Your task to perform on an android device: turn pop-ups off in chrome Image 0: 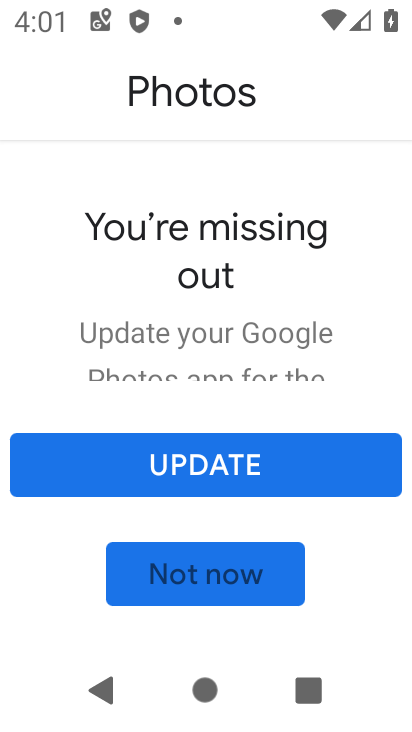
Step 0: click (247, 580)
Your task to perform on an android device: turn pop-ups off in chrome Image 1: 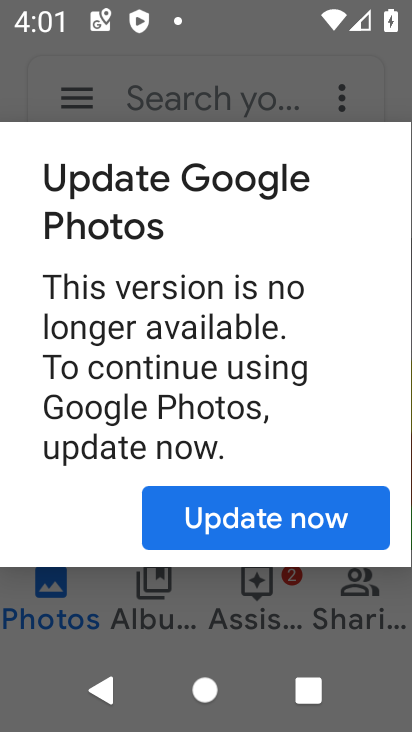
Step 1: press home button
Your task to perform on an android device: turn pop-ups off in chrome Image 2: 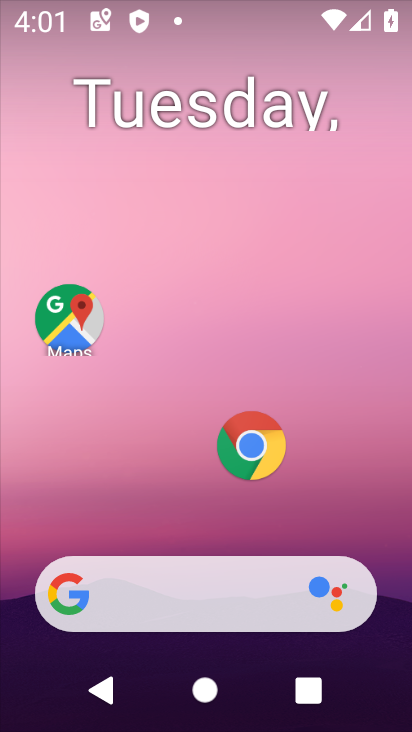
Step 2: drag from (199, 432) to (215, 81)
Your task to perform on an android device: turn pop-ups off in chrome Image 3: 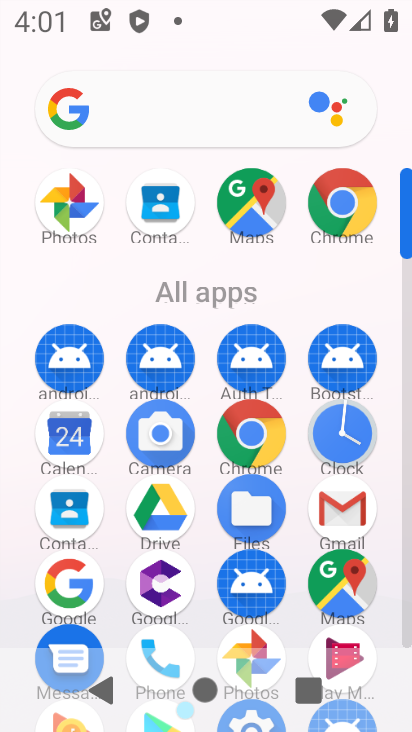
Step 3: click (356, 202)
Your task to perform on an android device: turn pop-ups off in chrome Image 4: 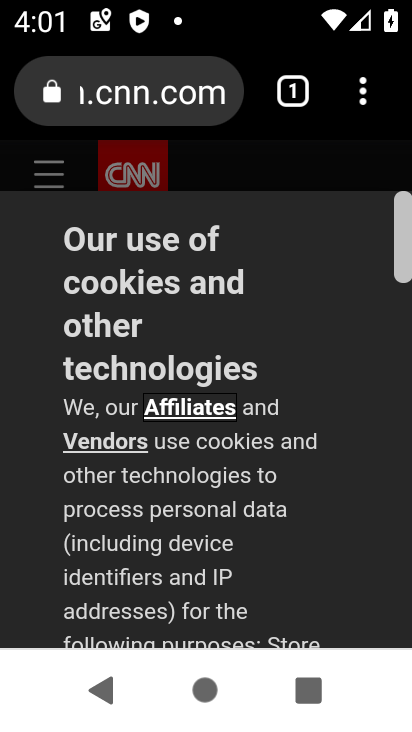
Step 4: click (381, 94)
Your task to perform on an android device: turn pop-ups off in chrome Image 5: 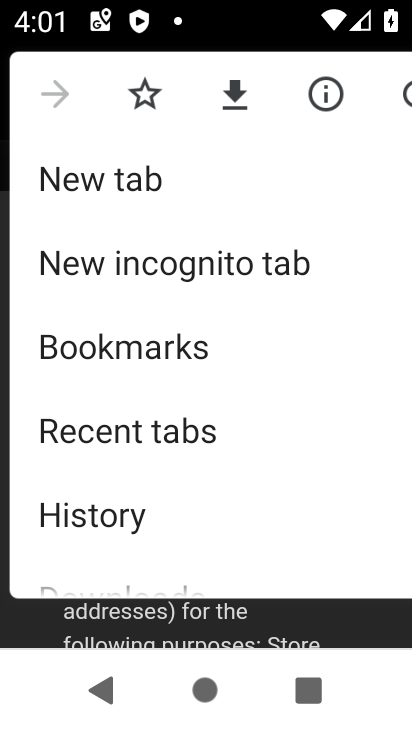
Step 5: drag from (134, 496) to (154, 266)
Your task to perform on an android device: turn pop-ups off in chrome Image 6: 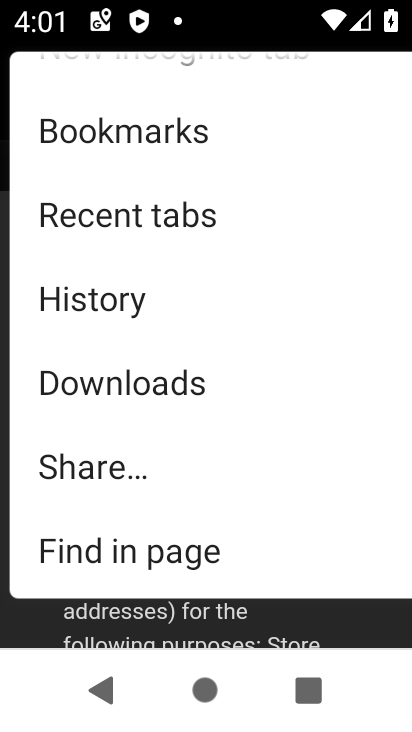
Step 6: drag from (100, 486) to (126, 349)
Your task to perform on an android device: turn pop-ups off in chrome Image 7: 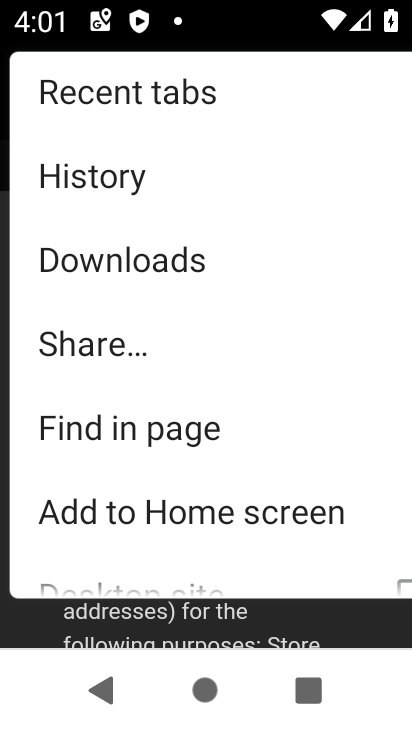
Step 7: drag from (89, 445) to (125, 11)
Your task to perform on an android device: turn pop-ups off in chrome Image 8: 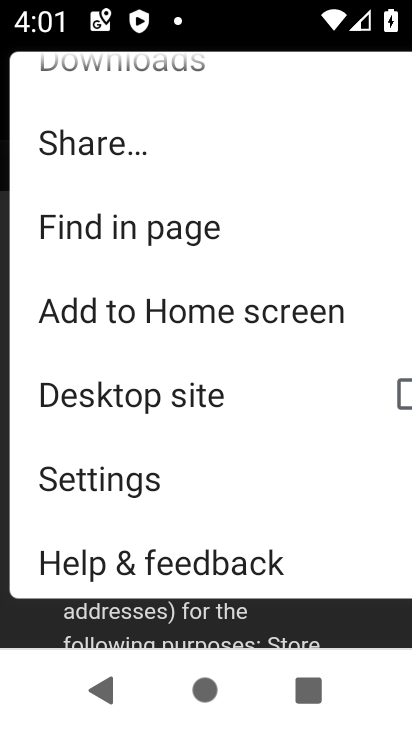
Step 8: click (93, 463)
Your task to perform on an android device: turn pop-ups off in chrome Image 9: 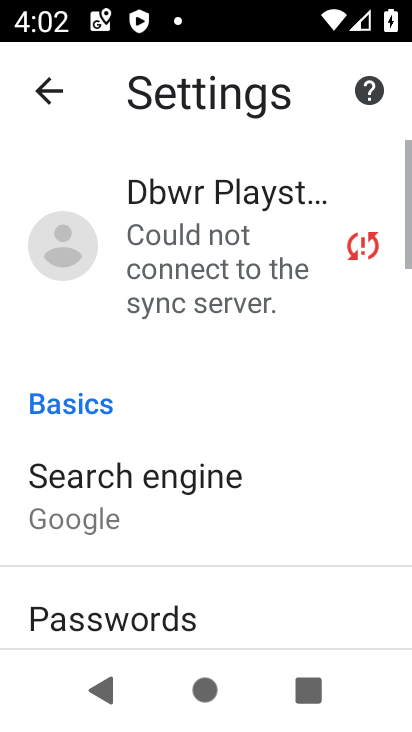
Step 9: drag from (144, 550) to (202, 153)
Your task to perform on an android device: turn pop-ups off in chrome Image 10: 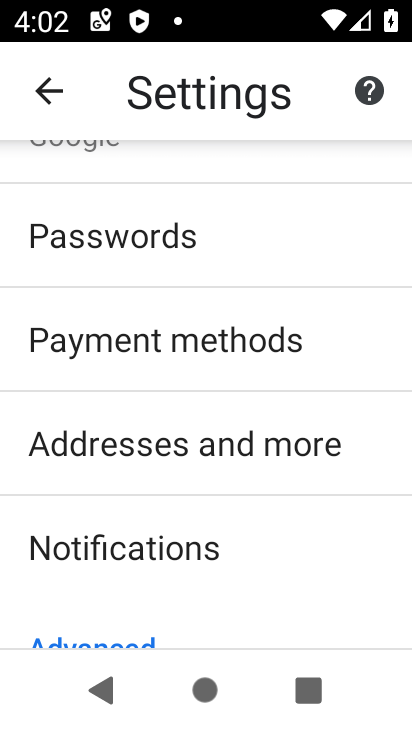
Step 10: drag from (156, 570) to (200, 219)
Your task to perform on an android device: turn pop-ups off in chrome Image 11: 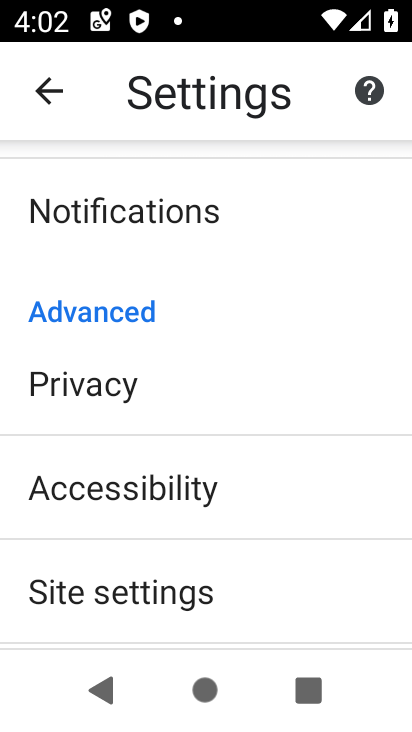
Step 11: drag from (169, 546) to (227, 181)
Your task to perform on an android device: turn pop-ups off in chrome Image 12: 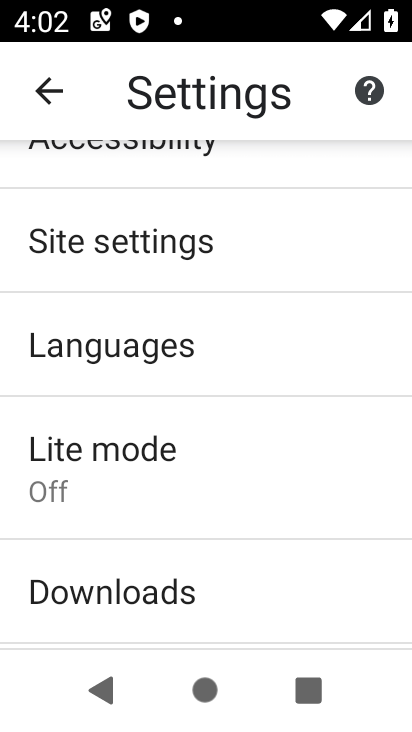
Step 12: click (167, 242)
Your task to perform on an android device: turn pop-ups off in chrome Image 13: 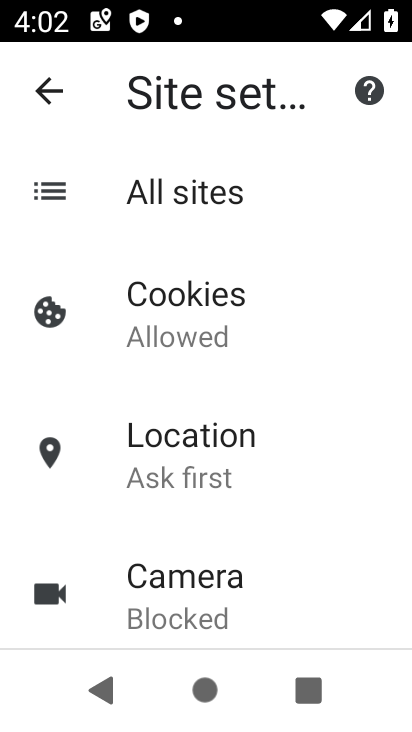
Step 13: drag from (210, 525) to (259, 156)
Your task to perform on an android device: turn pop-ups off in chrome Image 14: 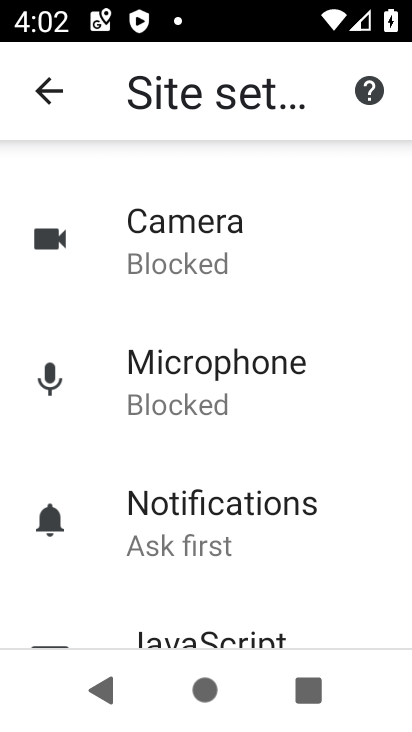
Step 14: drag from (201, 567) to (248, 221)
Your task to perform on an android device: turn pop-ups off in chrome Image 15: 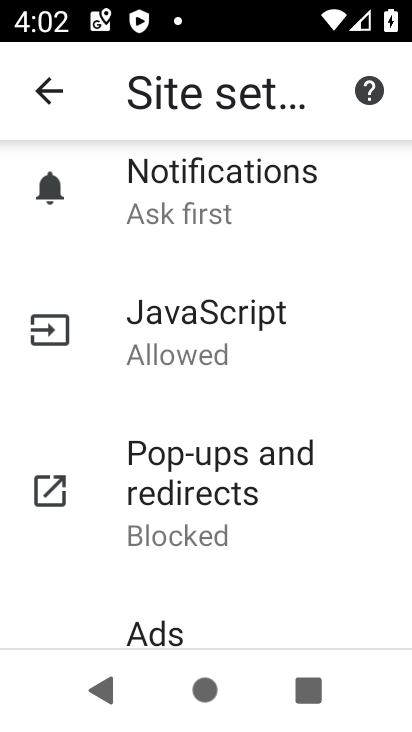
Step 15: click (193, 510)
Your task to perform on an android device: turn pop-ups off in chrome Image 16: 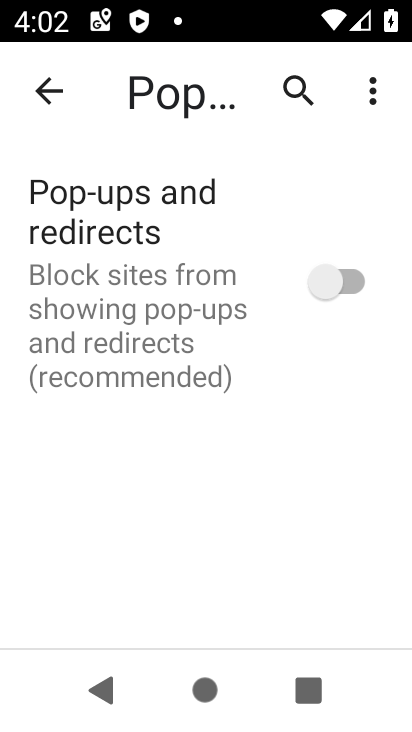
Step 16: task complete